Your task to perform on an android device: set the stopwatch Image 0: 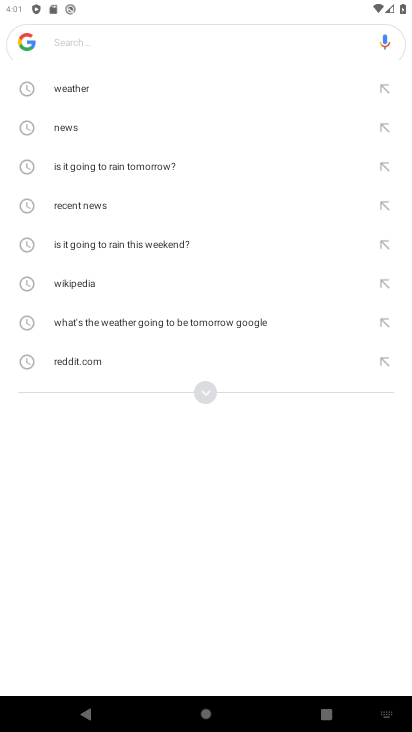
Step 0: press back button
Your task to perform on an android device: set the stopwatch Image 1: 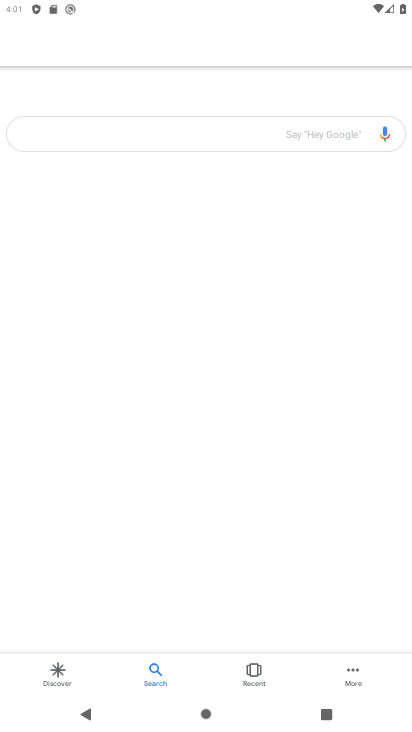
Step 1: press back button
Your task to perform on an android device: set the stopwatch Image 2: 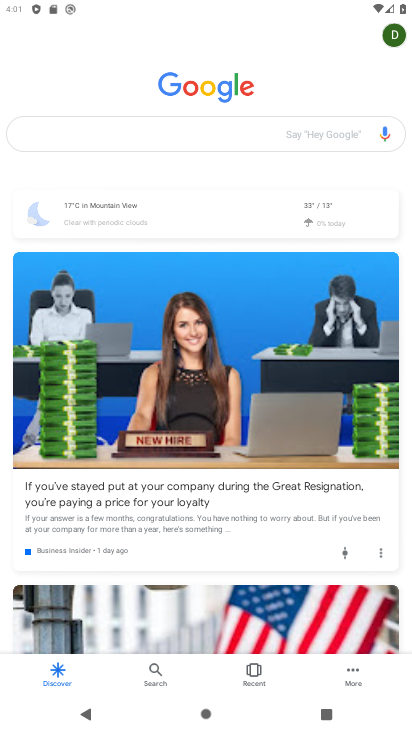
Step 2: press back button
Your task to perform on an android device: set the stopwatch Image 3: 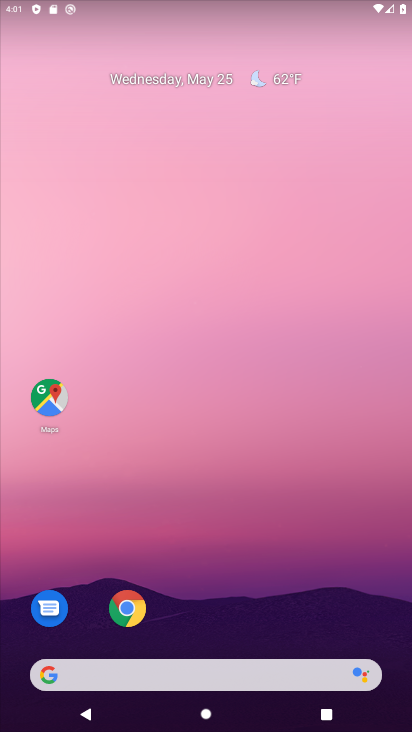
Step 3: drag from (209, 595) to (246, 136)
Your task to perform on an android device: set the stopwatch Image 4: 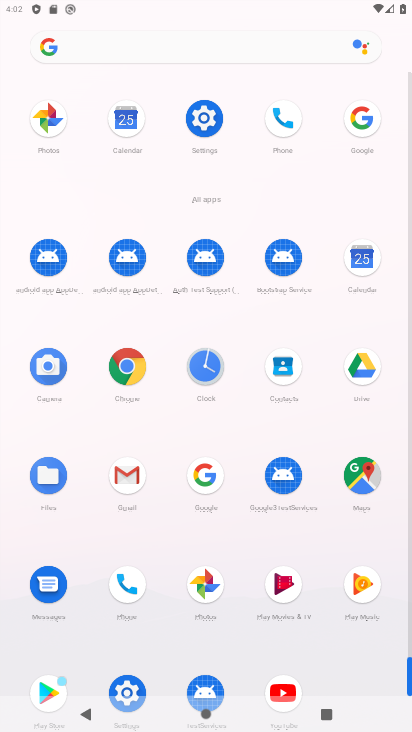
Step 4: click (203, 366)
Your task to perform on an android device: set the stopwatch Image 5: 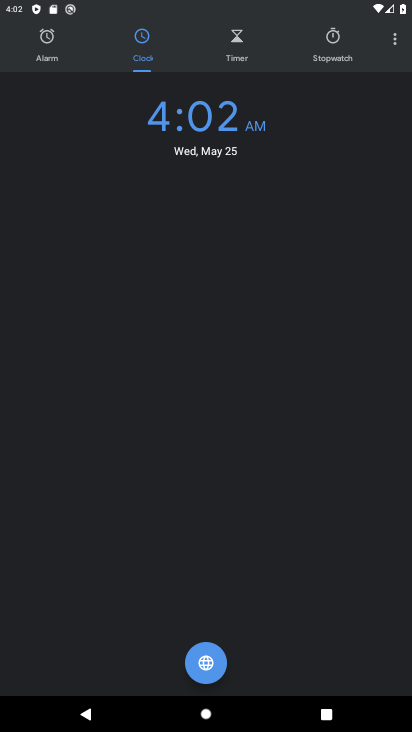
Step 5: click (334, 39)
Your task to perform on an android device: set the stopwatch Image 6: 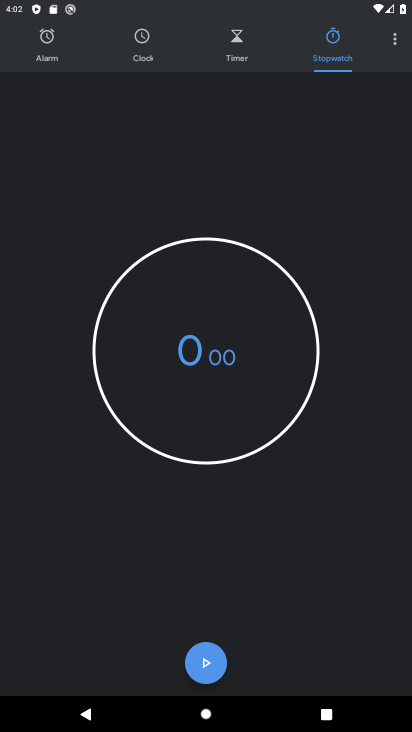
Step 6: click (205, 664)
Your task to perform on an android device: set the stopwatch Image 7: 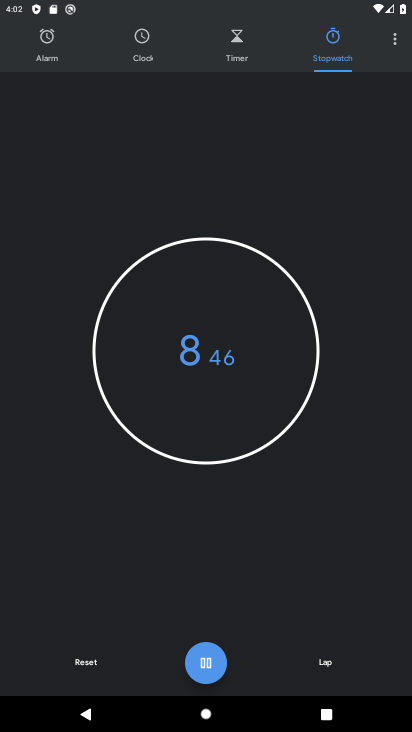
Step 7: click (205, 664)
Your task to perform on an android device: set the stopwatch Image 8: 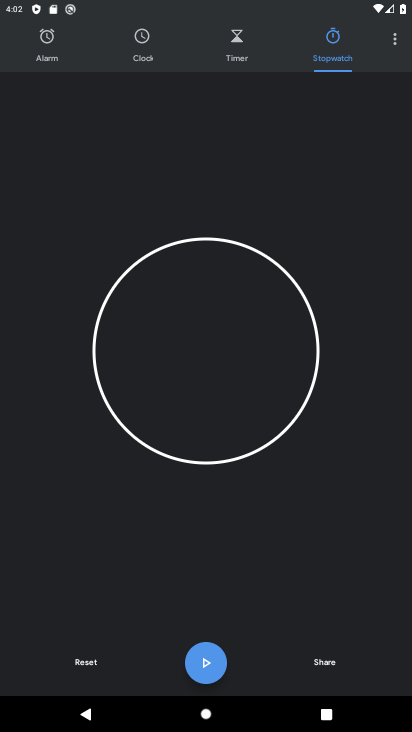
Step 8: task complete